Your task to perform on an android device: delete location history Image 0: 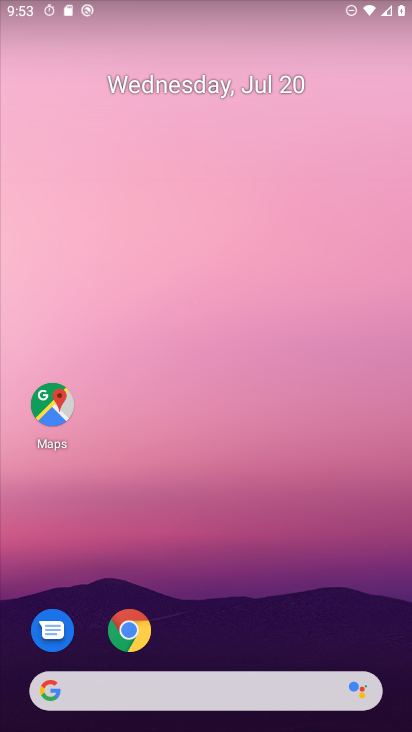
Step 0: drag from (257, 641) to (267, 219)
Your task to perform on an android device: delete location history Image 1: 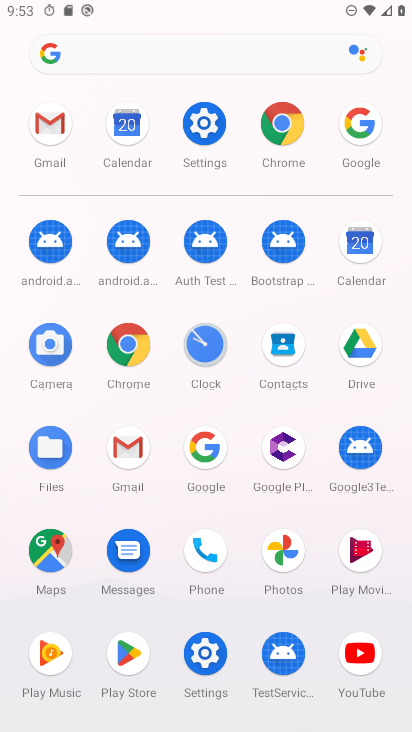
Step 1: click (206, 141)
Your task to perform on an android device: delete location history Image 2: 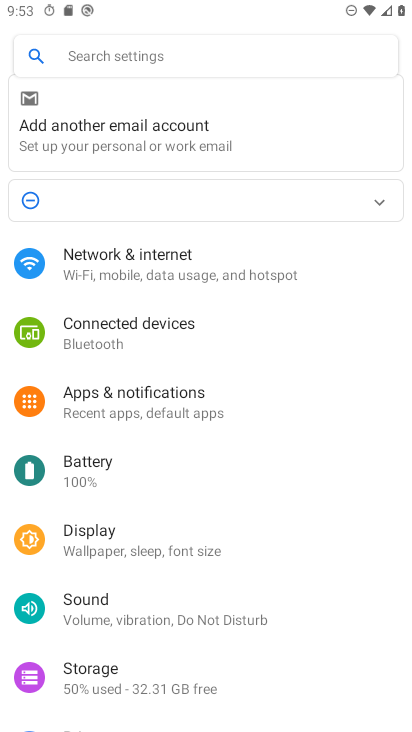
Step 2: drag from (187, 582) to (259, 204)
Your task to perform on an android device: delete location history Image 3: 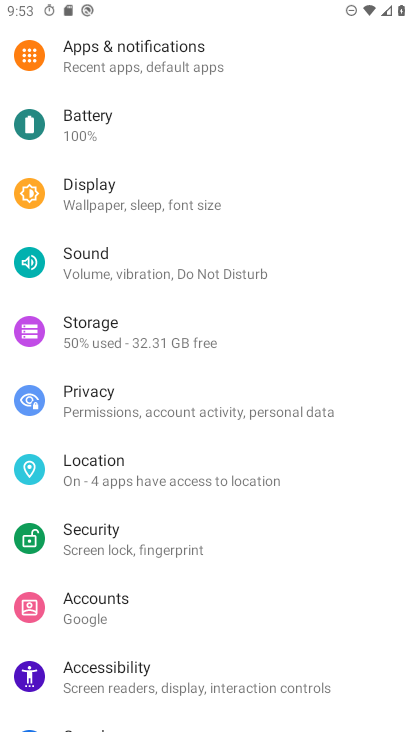
Step 3: click (232, 486)
Your task to perform on an android device: delete location history Image 4: 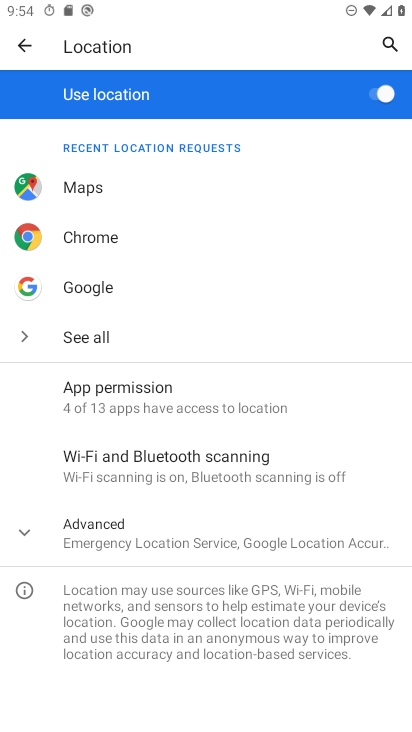
Step 4: click (192, 531)
Your task to perform on an android device: delete location history Image 5: 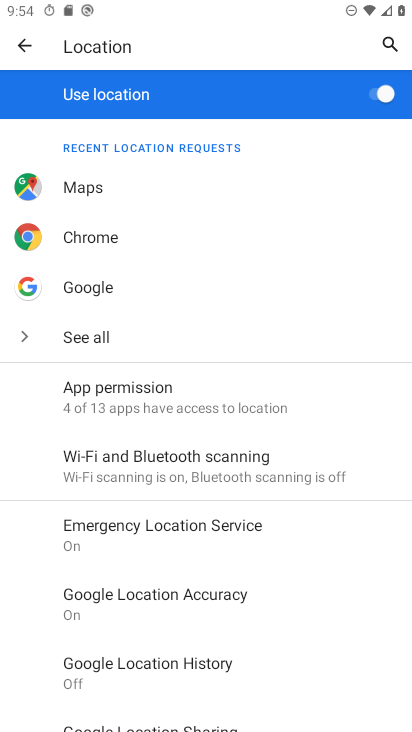
Step 5: click (146, 672)
Your task to perform on an android device: delete location history Image 6: 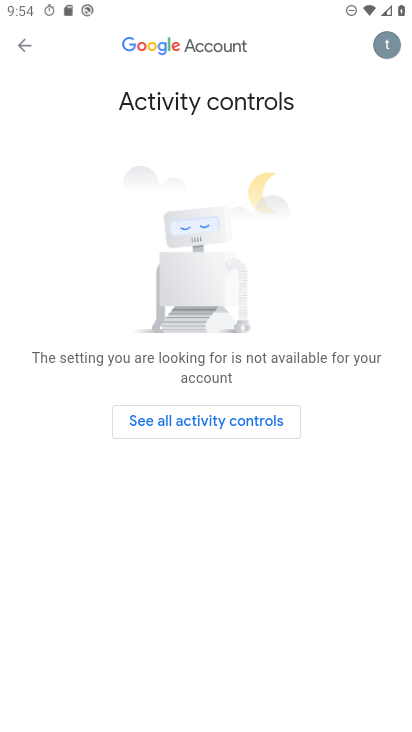
Step 6: task complete